Your task to perform on an android device: open the mobile data screen to see how much data has been used Image 0: 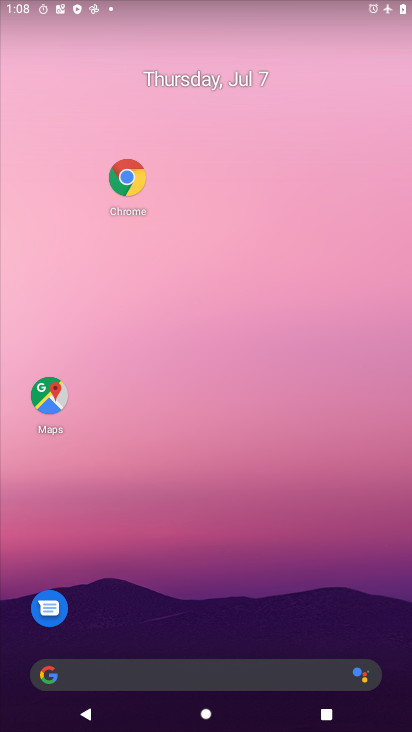
Step 0: drag from (175, 404) to (196, 110)
Your task to perform on an android device: open the mobile data screen to see how much data has been used Image 1: 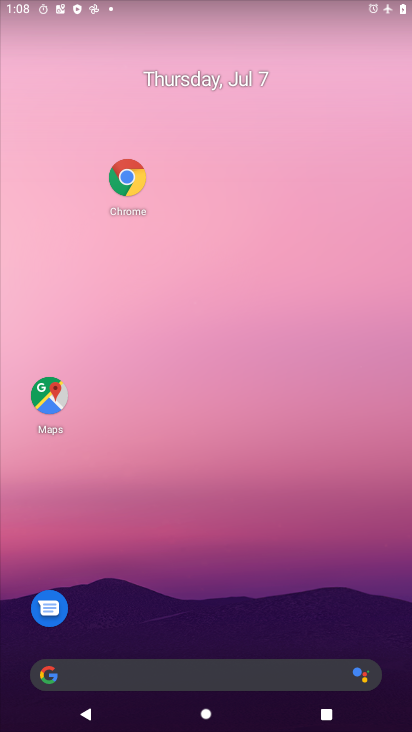
Step 1: drag from (197, 644) to (228, 95)
Your task to perform on an android device: open the mobile data screen to see how much data has been used Image 2: 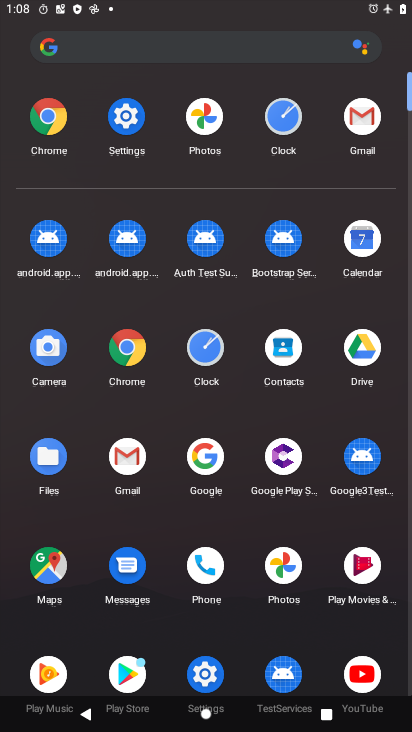
Step 2: click (120, 112)
Your task to perform on an android device: open the mobile data screen to see how much data has been used Image 3: 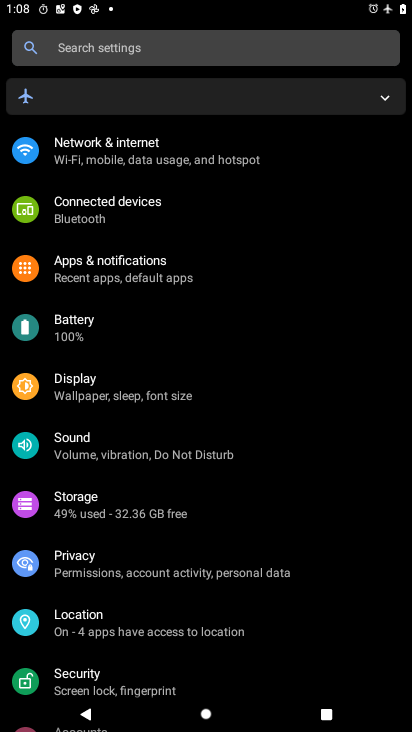
Step 3: click (96, 148)
Your task to perform on an android device: open the mobile data screen to see how much data has been used Image 4: 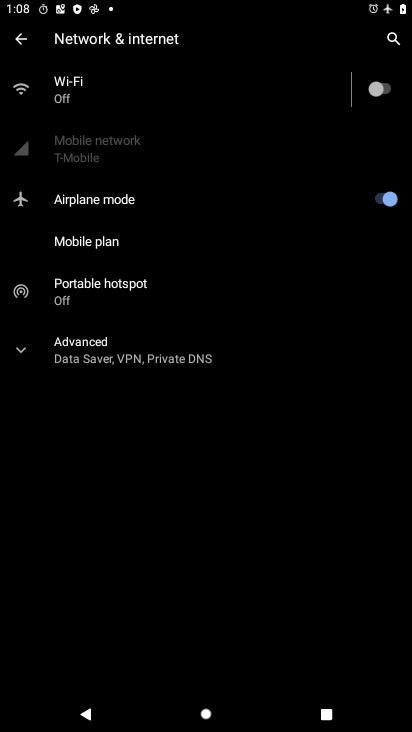
Step 4: click (93, 246)
Your task to perform on an android device: open the mobile data screen to see how much data has been used Image 5: 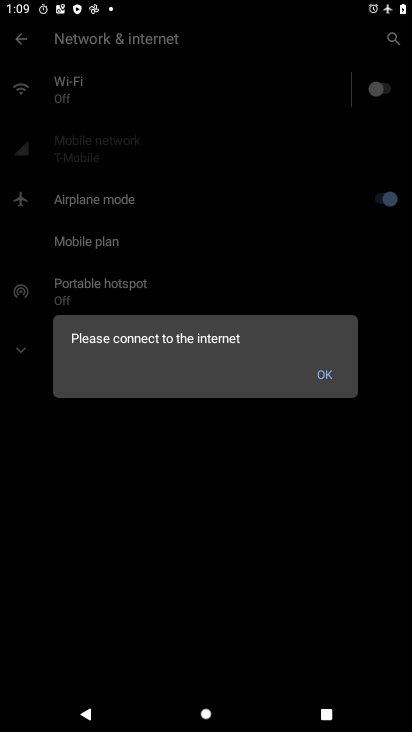
Step 5: click (318, 375)
Your task to perform on an android device: open the mobile data screen to see how much data has been used Image 6: 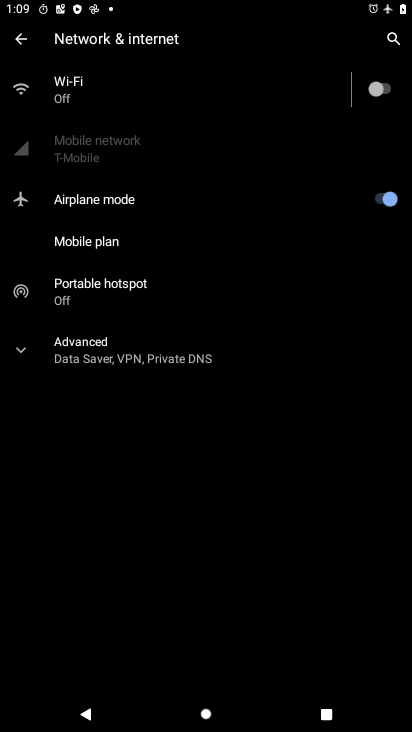
Step 6: click (382, 202)
Your task to perform on an android device: open the mobile data screen to see how much data has been used Image 7: 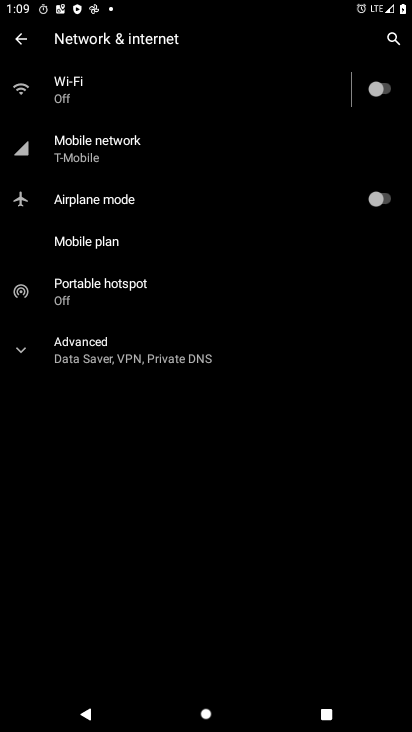
Step 7: click (101, 238)
Your task to perform on an android device: open the mobile data screen to see how much data has been used Image 8: 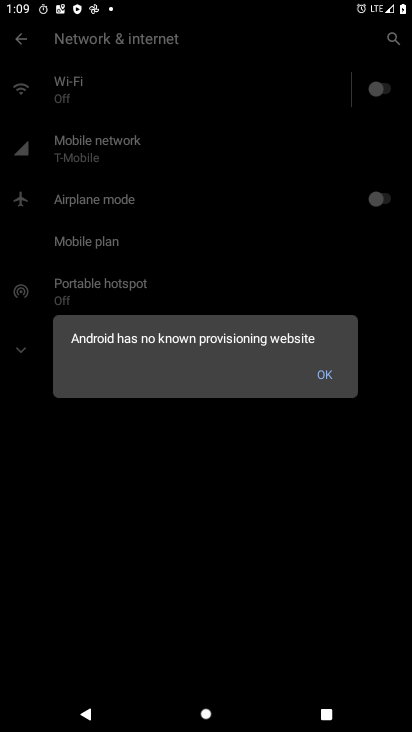
Step 8: click (266, 425)
Your task to perform on an android device: open the mobile data screen to see how much data has been used Image 9: 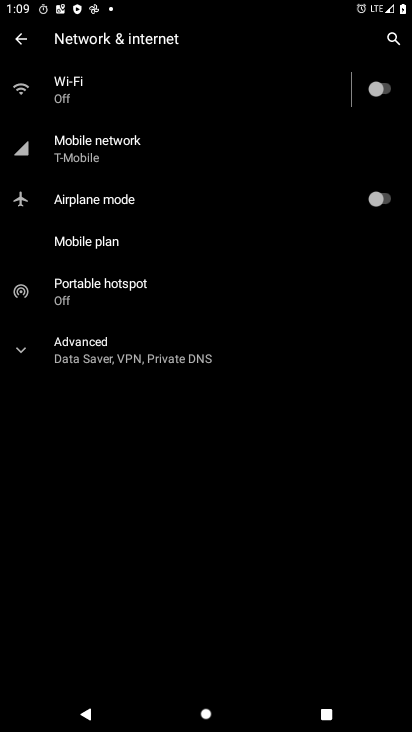
Step 9: click (323, 375)
Your task to perform on an android device: open the mobile data screen to see how much data has been used Image 10: 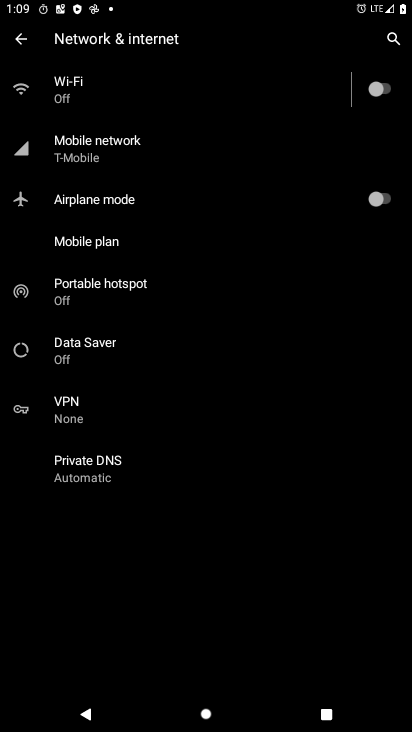
Step 10: click (79, 148)
Your task to perform on an android device: open the mobile data screen to see how much data has been used Image 11: 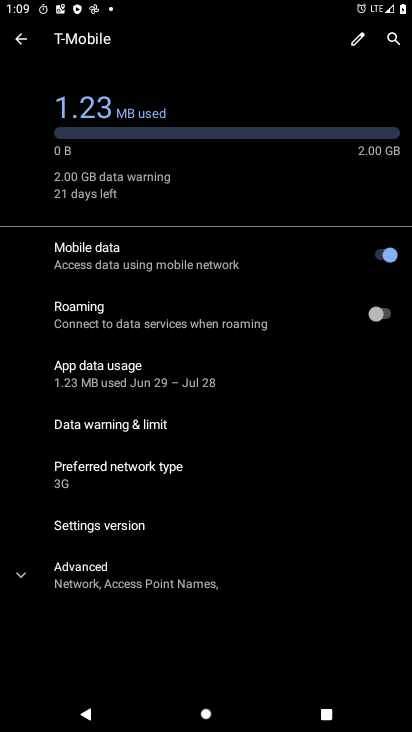
Step 11: task complete